Your task to perform on an android device: Add acer nitro to the cart on bestbuy.com Image 0: 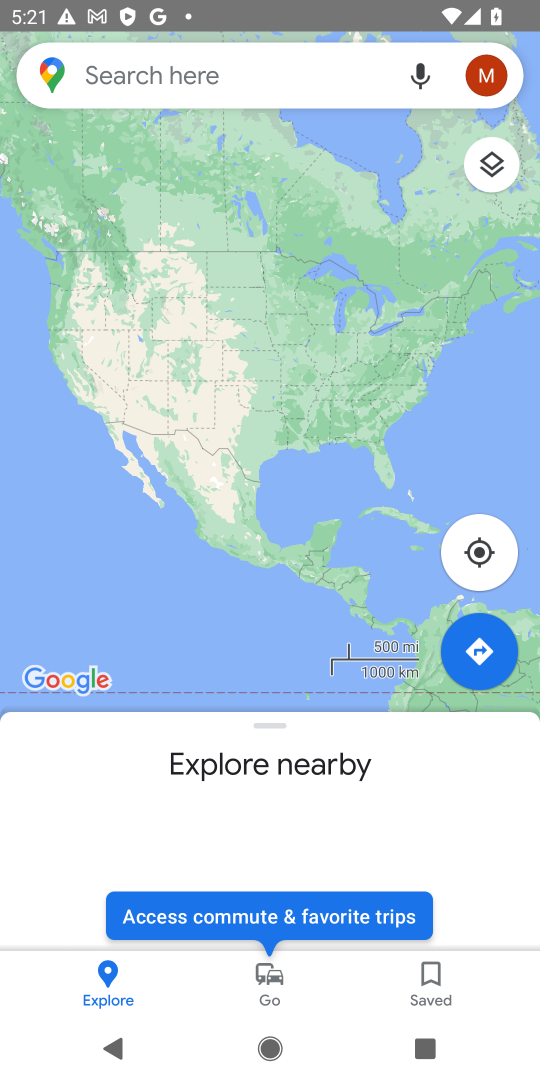
Step 0: press home button
Your task to perform on an android device: Add acer nitro to the cart on bestbuy.com Image 1: 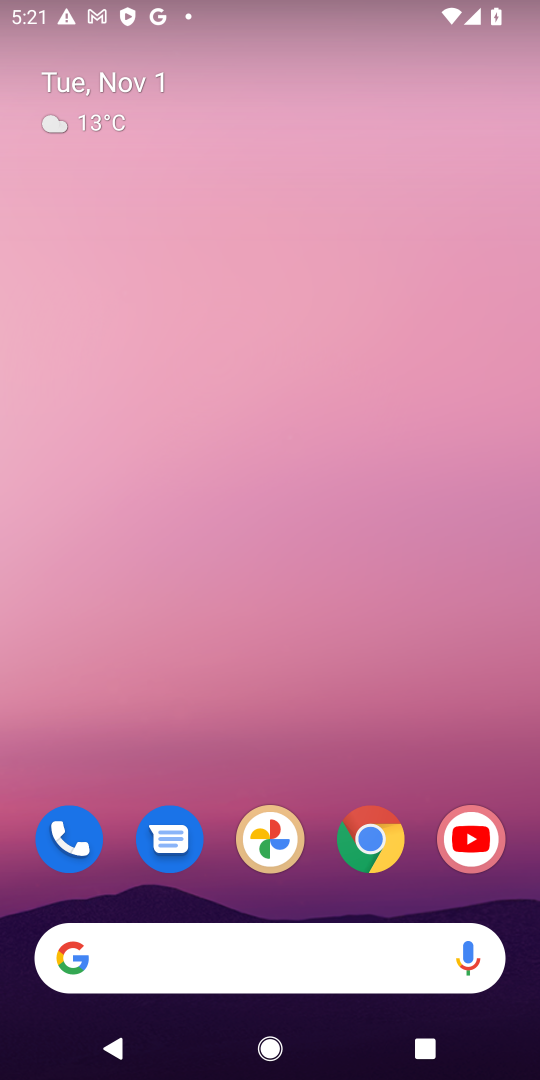
Step 1: drag from (329, 862) to (372, 161)
Your task to perform on an android device: Add acer nitro to the cart on bestbuy.com Image 2: 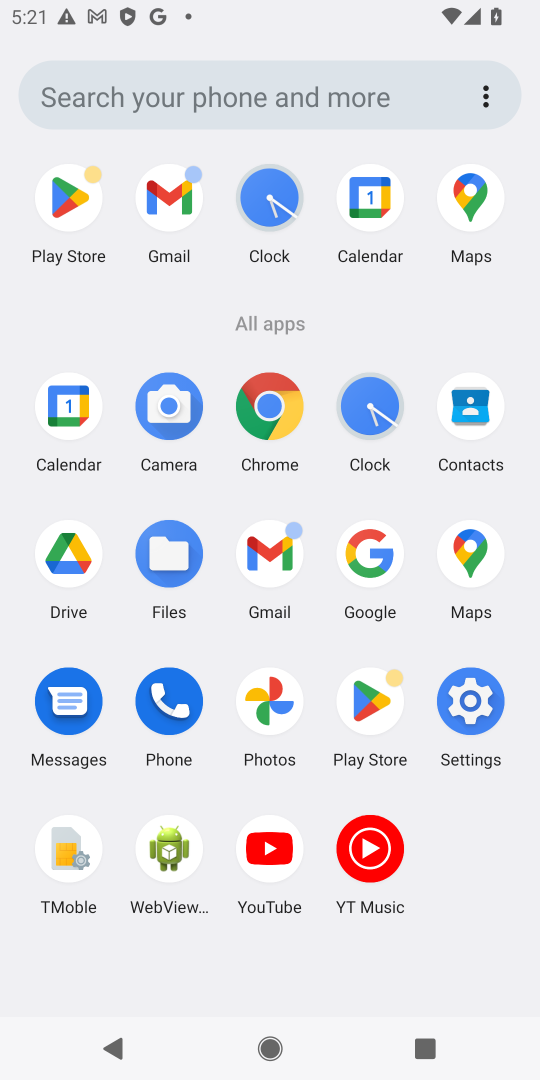
Step 2: click (263, 397)
Your task to perform on an android device: Add acer nitro to the cart on bestbuy.com Image 3: 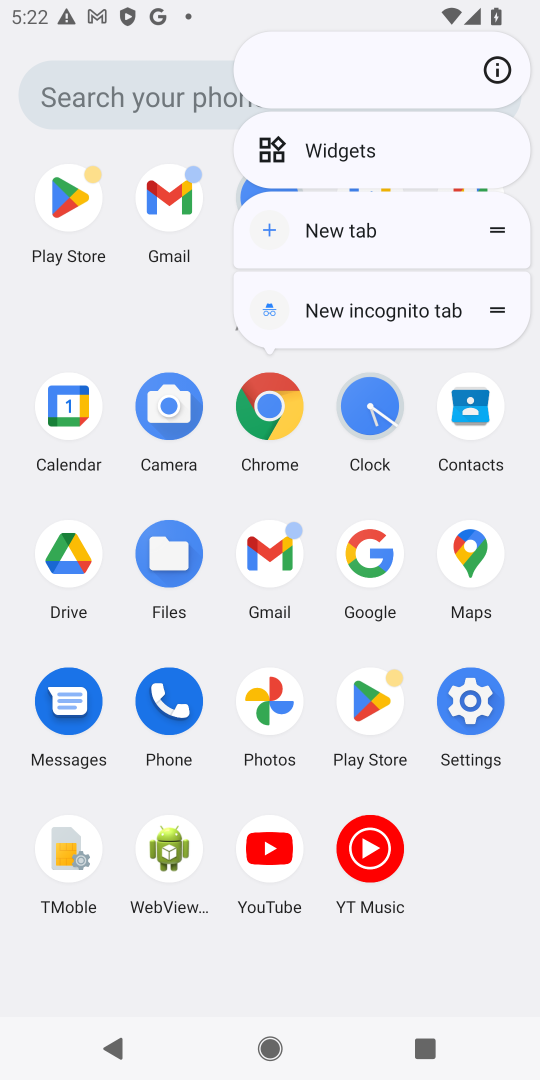
Step 3: click (265, 404)
Your task to perform on an android device: Add acer nitro to the cart on bestbuy.com Image 4: 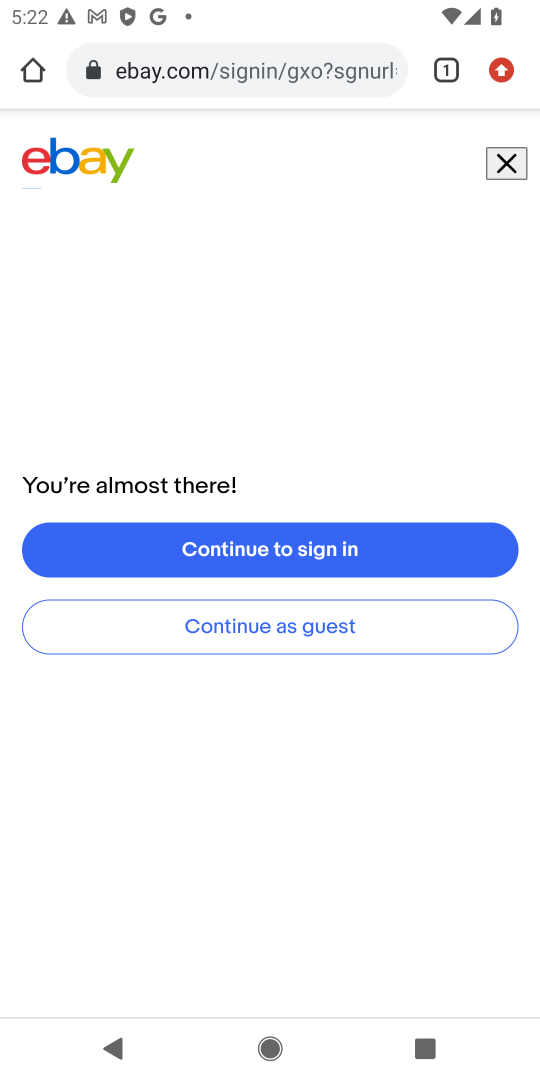
Step 4: click (301, 63)
Your task to perform on an android device: Add acer nitro to the cart on bestbuy.com Image 5: 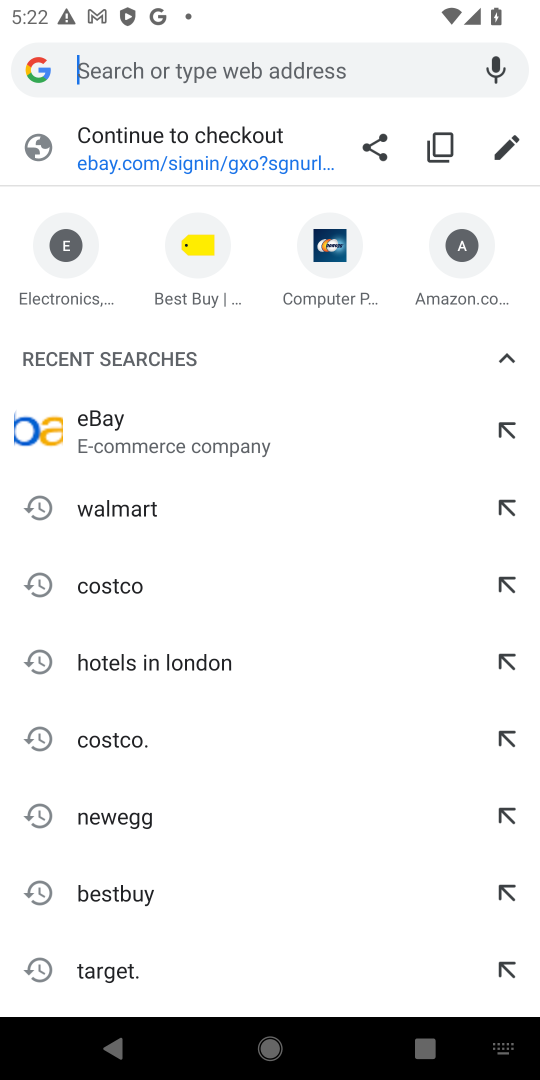
Step 5: type "bestbuy.com"
Your task to perform on an android device: Add acer nitro to the cart on bestbuy.com Image 6: 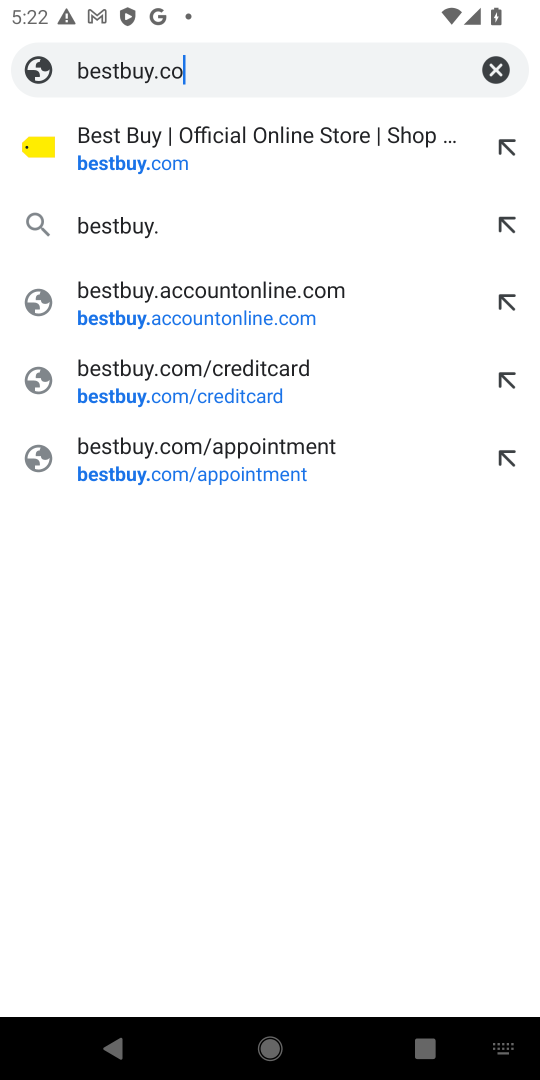
Step 6: press enter
Your task to perform on an android device: Add acer nitro to the cart on bestbuy.com Image 7: 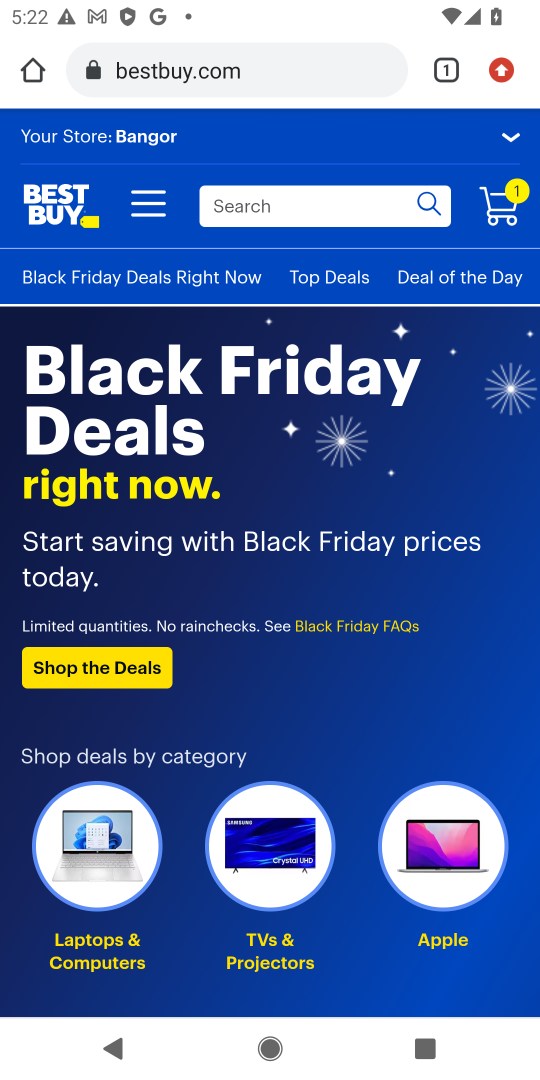
Step 7: click (348, 216)
Your task to perform on an android device: Add acer nitro to the cart on bestbuy.com Image 8: 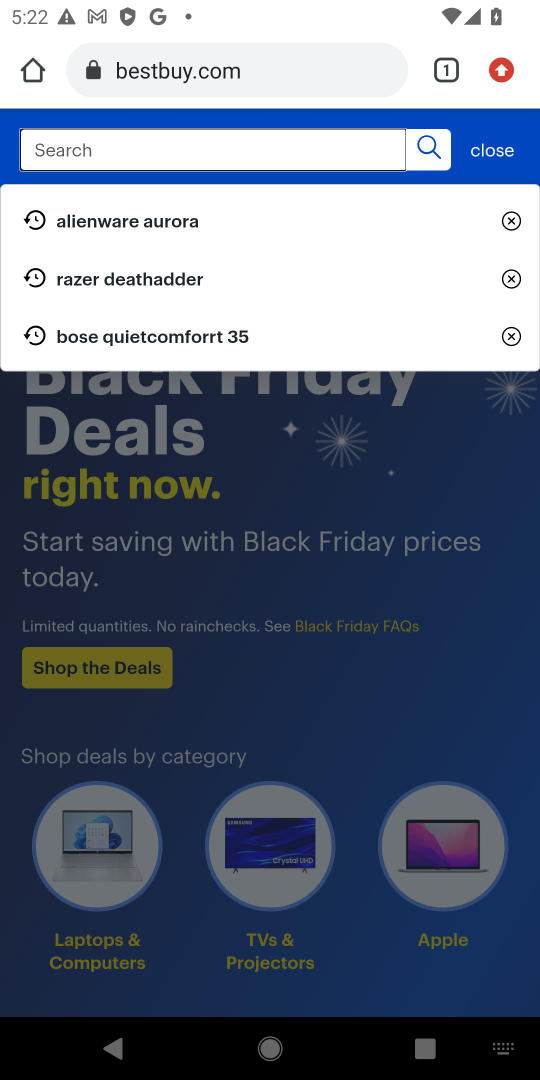
Step 8: type "acer nitro"
Your task to perform on an android device: Add acer nitro to the cart on bestbuy.com Image 9: 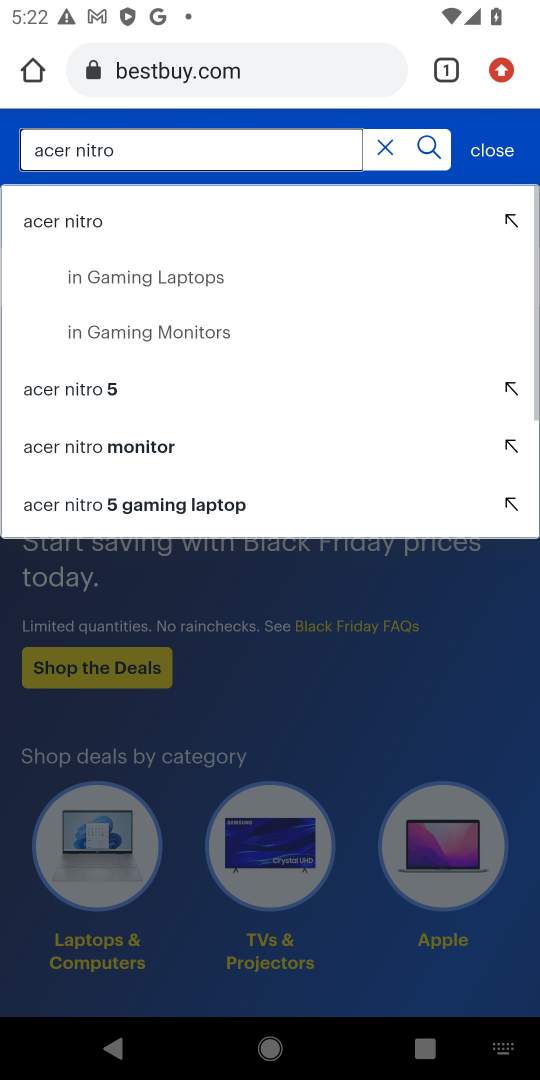
Step 9: press enter
Your task to perform on an android device: Add acer nitro to the cart on bestbuy.com Image 10: 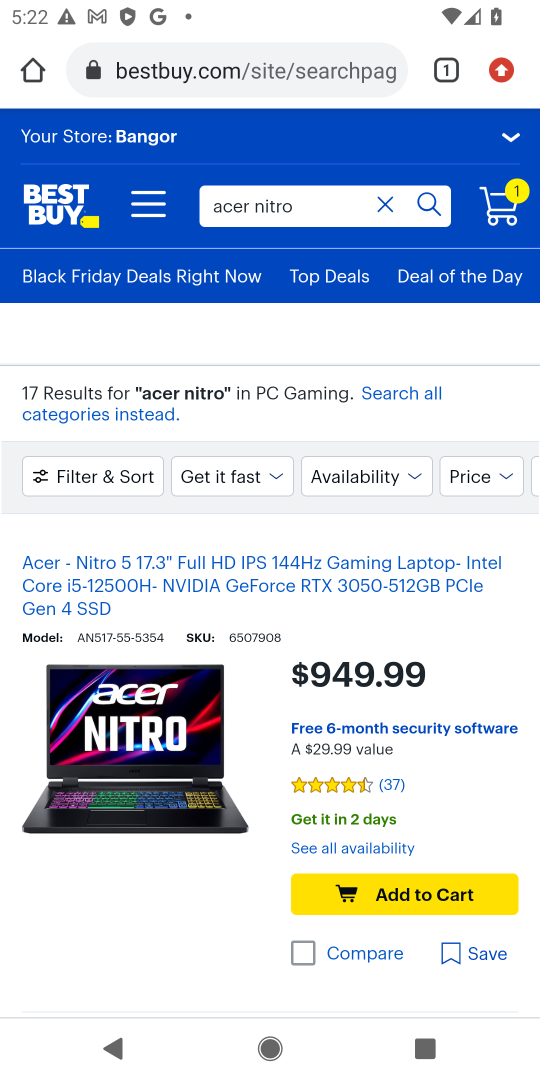
Step 10: click (464, 832)
Your task to perform on an android device: Add acer nitro to the cart on bestbuy.com Image 11: 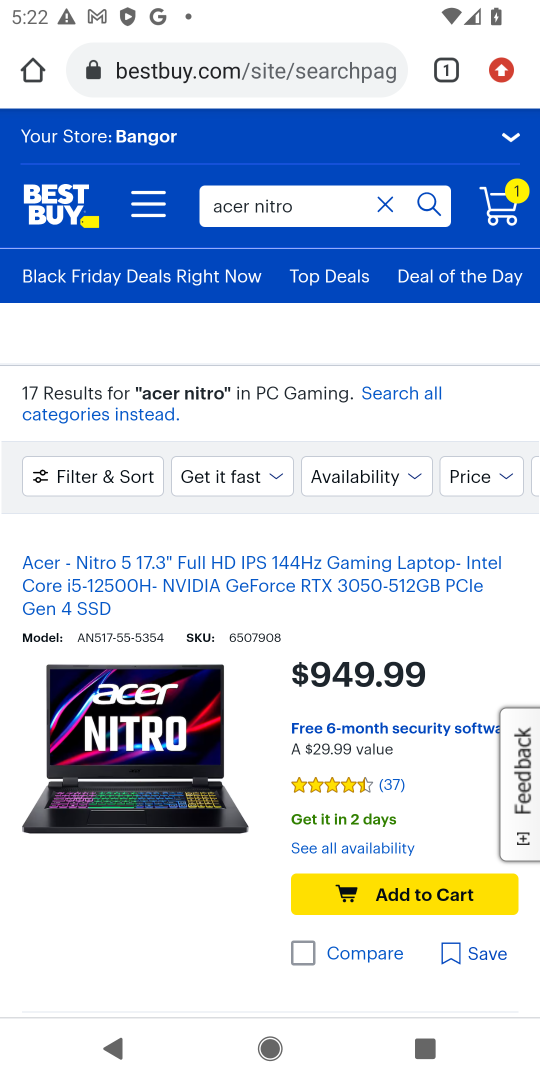
Step 11: click (425, 896)
Your task to perform on an android device: Add acer nitro to the cart on bestbuy.com Image 12: 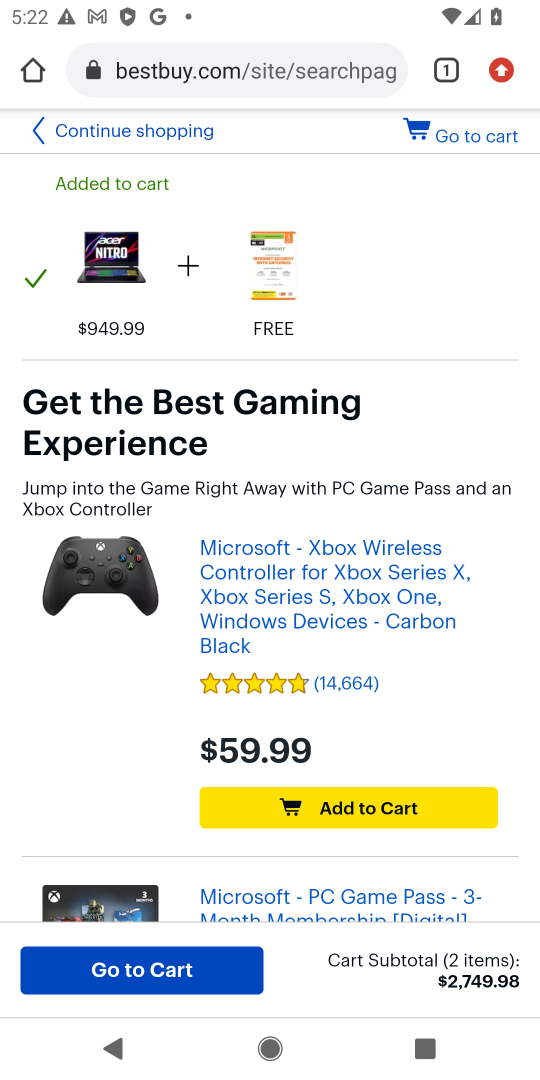
Step 12: task complete